Your task to perform on an android device: create a new album in the google photos Image 0: 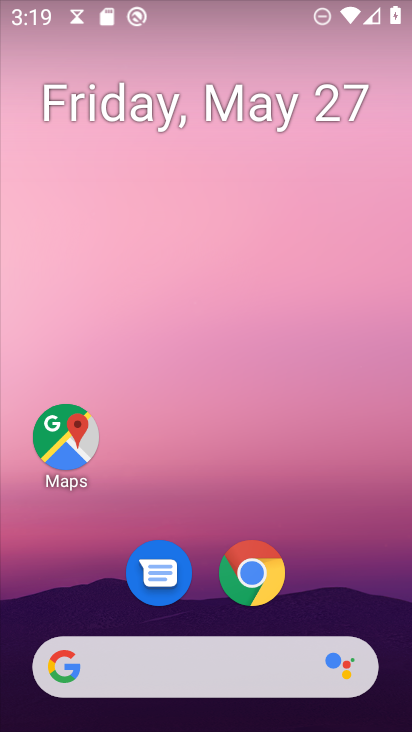
Step 0: drag from (347, 550) to (372, 0)
Your task to perform on an android device: create a new album in the google photos Image 1: 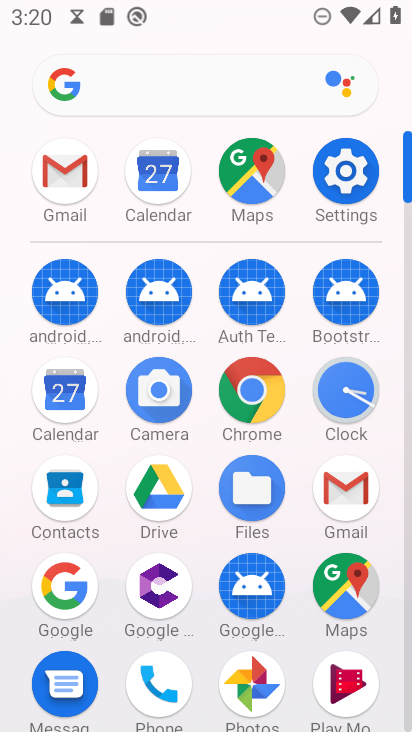
Step 1: click (252, 673)
Your task to perform on an android device: create a new album in the google photos Image 2: 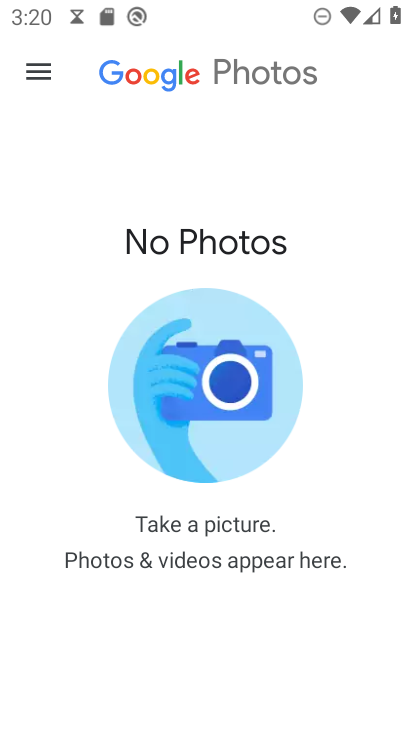
Step 2: click (38, 86)
Your task to perform on an android device: create a new album in the google photos Image 3: 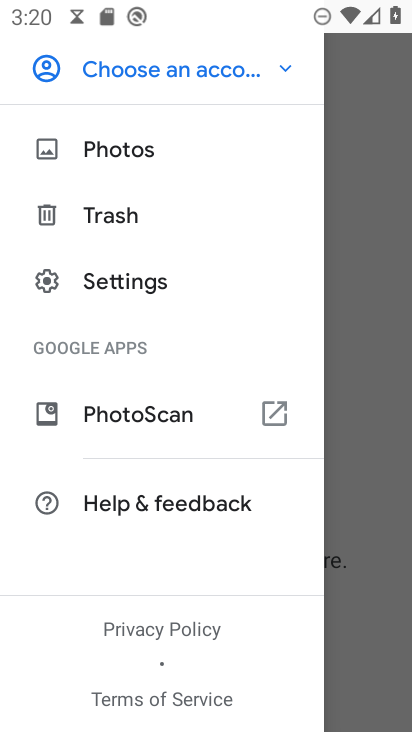
Step 3: drag from (148, 263) to (192, 452)
Your task to perform on an android device: create a new album in the google photos Image 4: 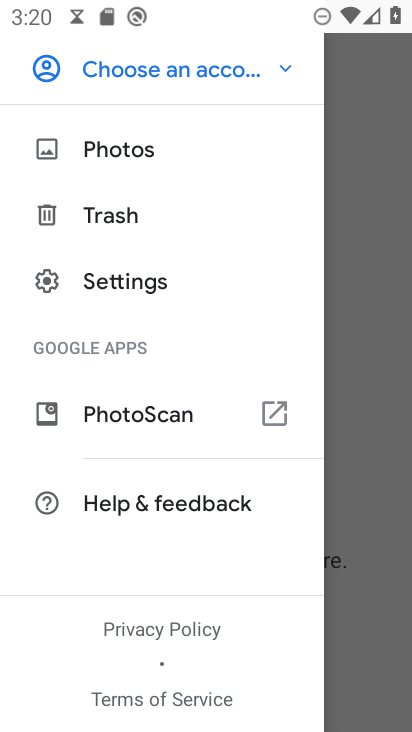
Step 4: click (200, 84)
Your task to perform on an android device: create a new album in the google photos Image 5: 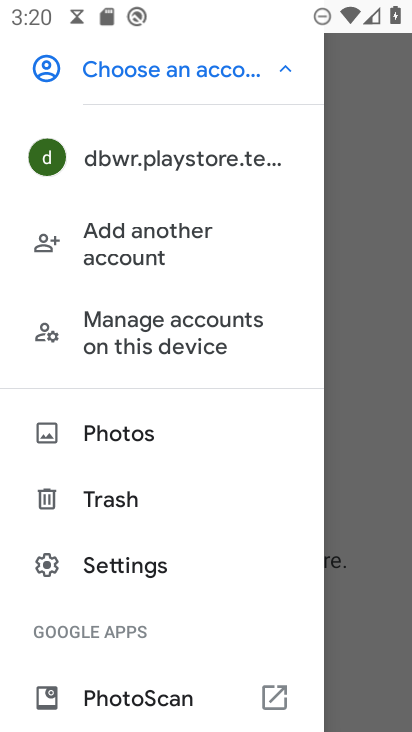
Step 5: click (210, 164)
Your task to perform on an android device: create a new album in the google photos Image 6: 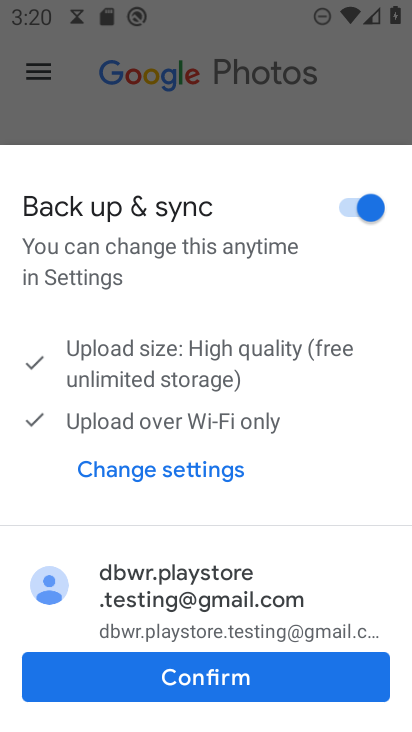
Step 6: click (234, 677)
Your task to perform on an android device: create a new album in the google photos Image 7: 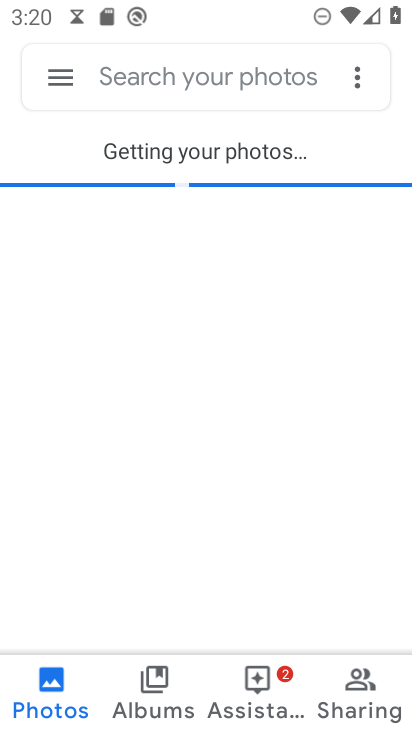
Step 7: click (147, 705)
Your task to perform on an android device: create a new album in the google photos Image 8: 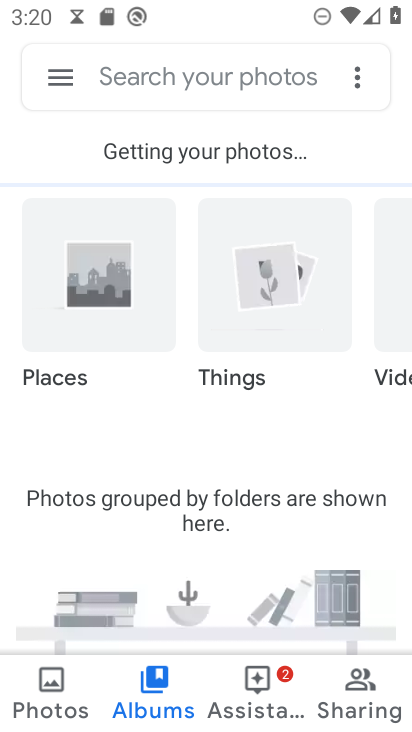
Step 8: click (355, 83)
Your task to perform on an android device: create a new album in the google photos Image 9: 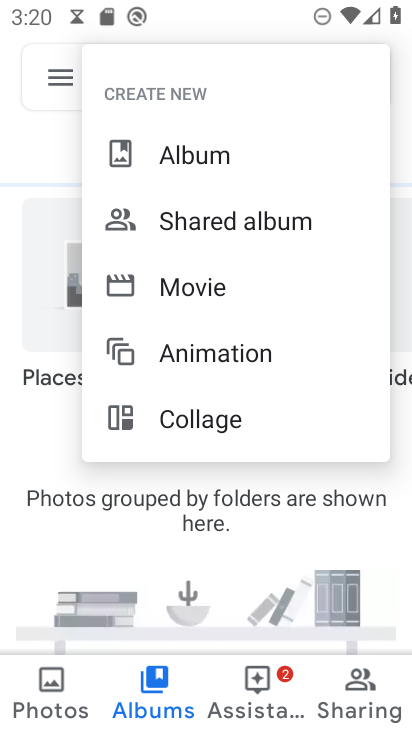
Step 9: click (188, 152)
Your task to perform on an android device: create a new album in the google photos Image 10: 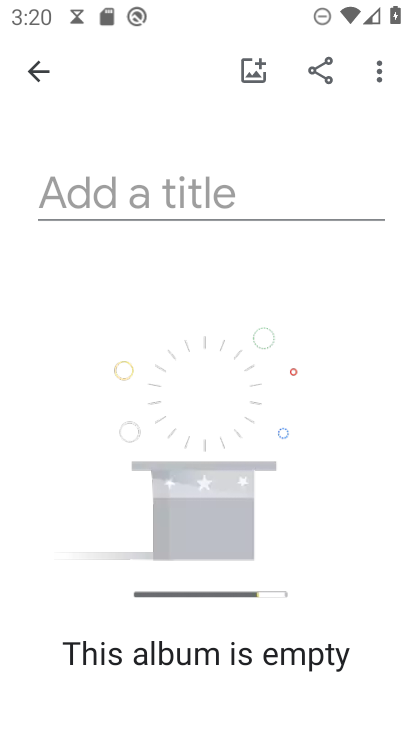
Step 10: click (146, 195)
Your task to perform on an android device: create a new album in the google photos Image 11: 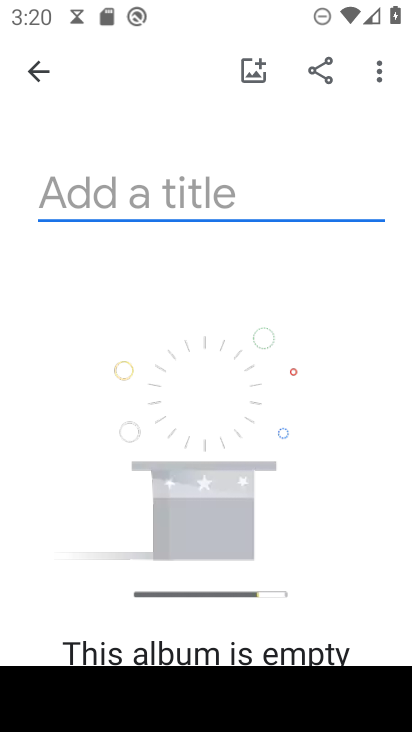
Step 11: type "njiokm"
Your task to perform on an android device: create a new album in the google photos Image 12: 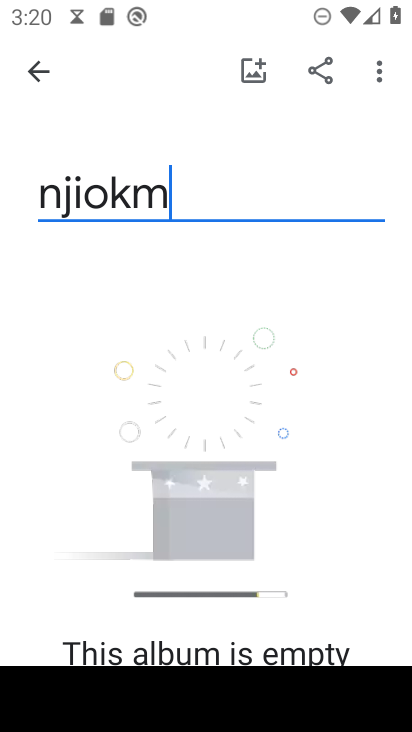
Step 12: click (250, 71)
Your task to perform on an android device: create a new album in the google photos Image 13: 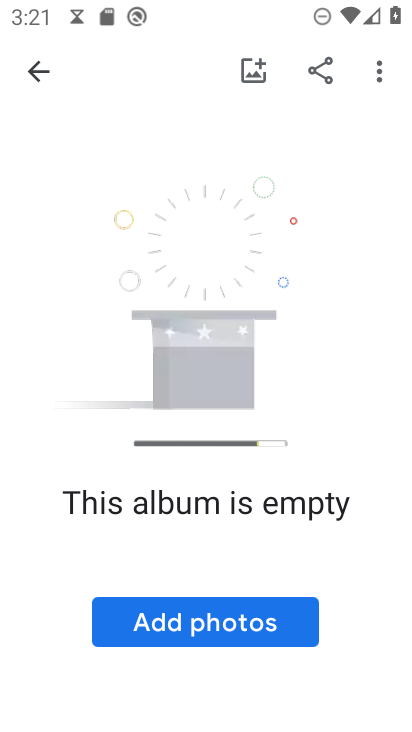
Step 13: click (197, 630)
Your task to perform on an android device: create a new album in the google photos Image 14: 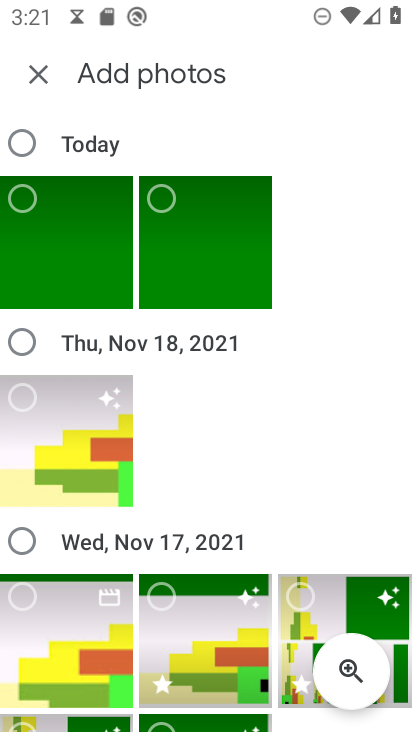
Step 14: click (71, 627)
Your task to perform on an android device: create a new album in the google photos Image 15: 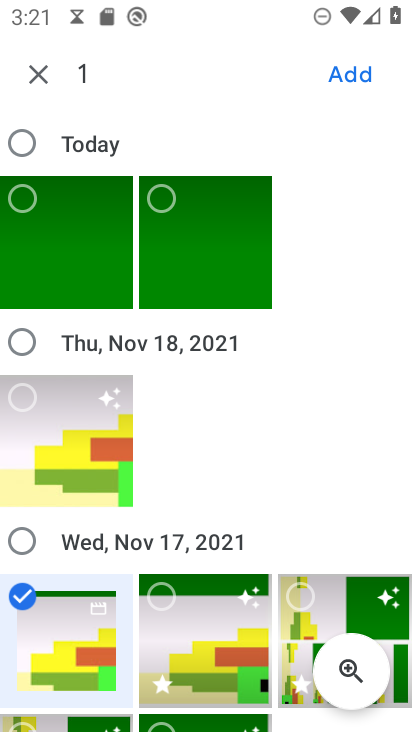
Step 15: click (357, 70)
Your task to perform on an android device: create a new album in the google photos Image 16: 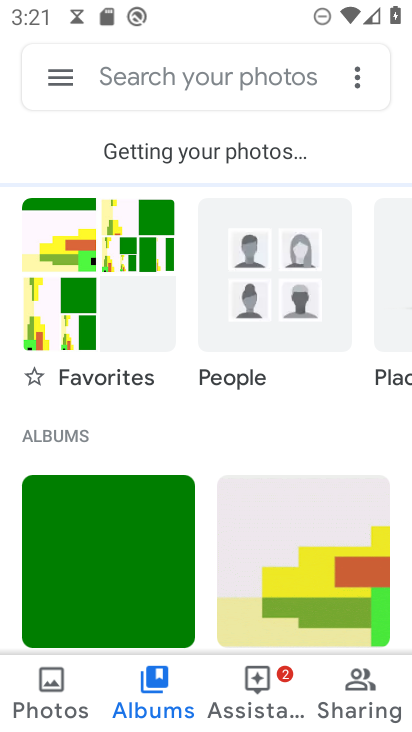
Step 16: task complete